Your task to perform on an android device: turn off priority inbox in the gmail app Image 0: 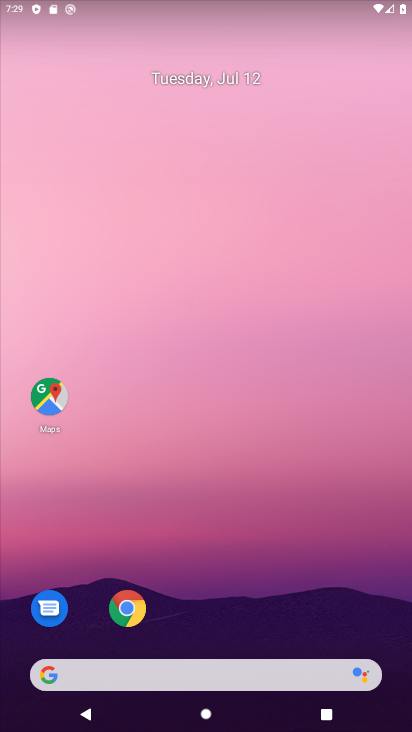
Step 0: drag from (243, 550) to (254, 269)
Your task to perform on an android device: turn off priority inbox in the gmail app Image 1: 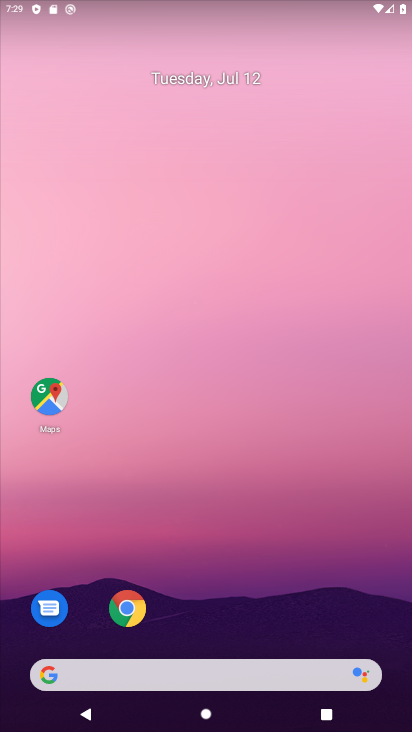
Step 1: drag from (181, 544) to (194, 269)
Your task to perform on an android device: turn off priority inbox in the gmail app Image 2: 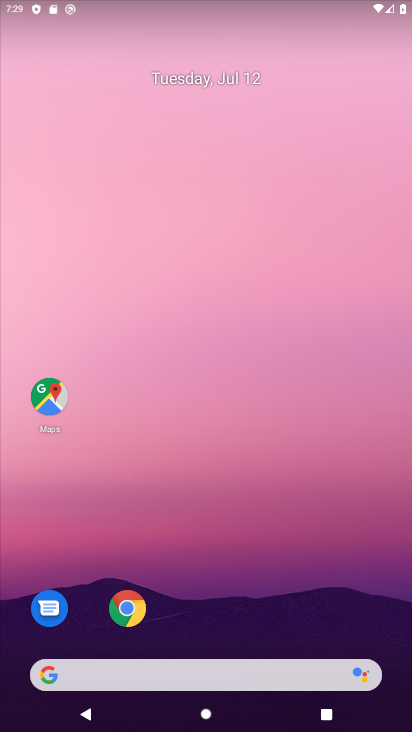
Step 2: click (229, 367)
Your task to perform on an android device: turn off priority inbox in the gmail app Image 3: 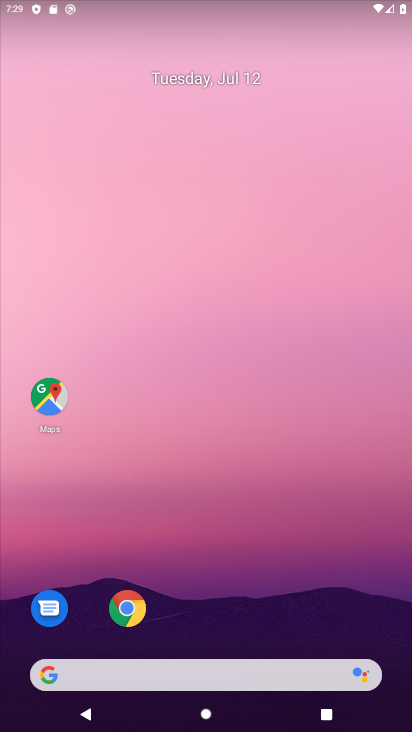
Step 3: drag from (206, 624) to (208, 111)
Your task to perform on an android device: turn off priority inbox in the gmail app Image 4: 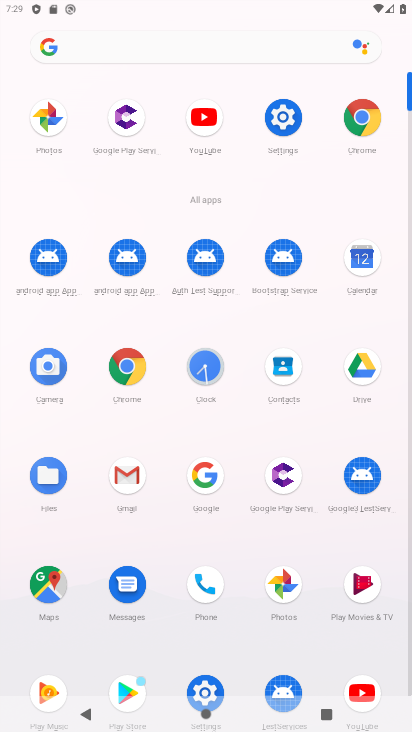
Step 4: click (125, 493)
Your task to perform on an android device: turn off priority inbox in the gmail app Image 5: 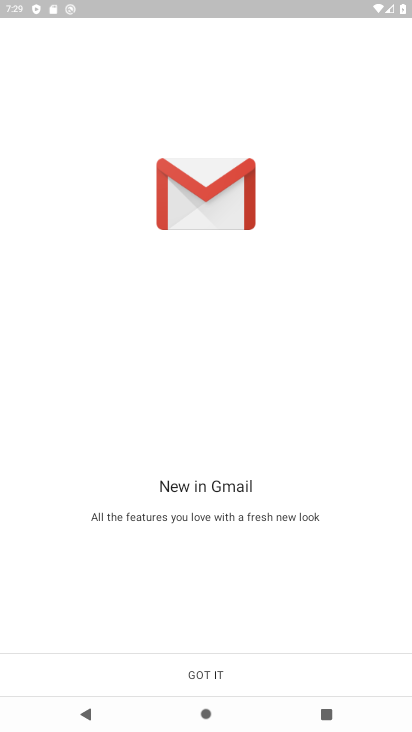
Step 5: click (194, 679)
Your task to perform on an android device: turn off priority inbox in the gmail app Image 6: 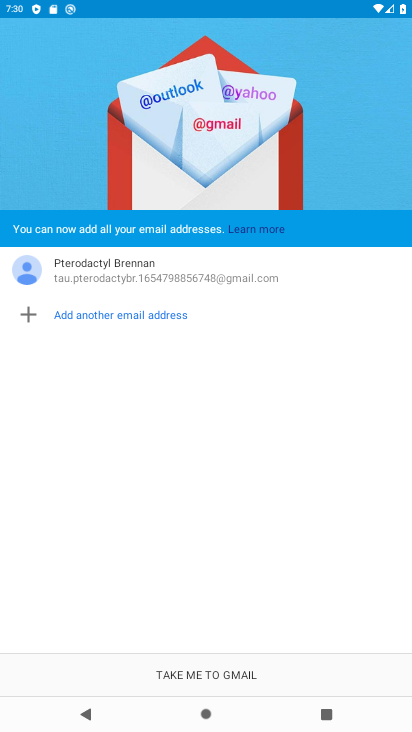
Step 6: click (205, 671)
Your task to perform on an android device: turn off priority inbox in the gmail app Image 7: 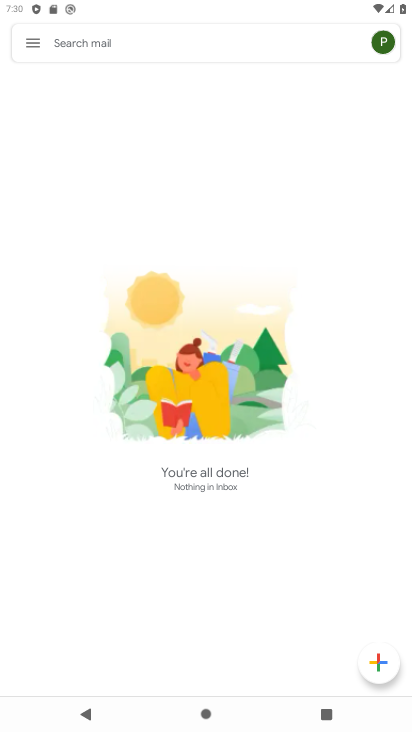
Step 7: click (30, 44)
Your task to perform on an android device: turn off priority inbox in the gmail app Image 8: 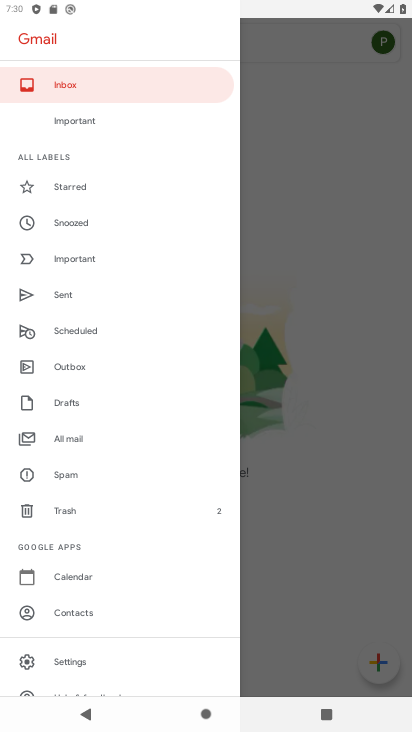
Step 8: click (67, 666)
Your task to perform on an android device: turn off priority inbox in the gmail app Image 9: 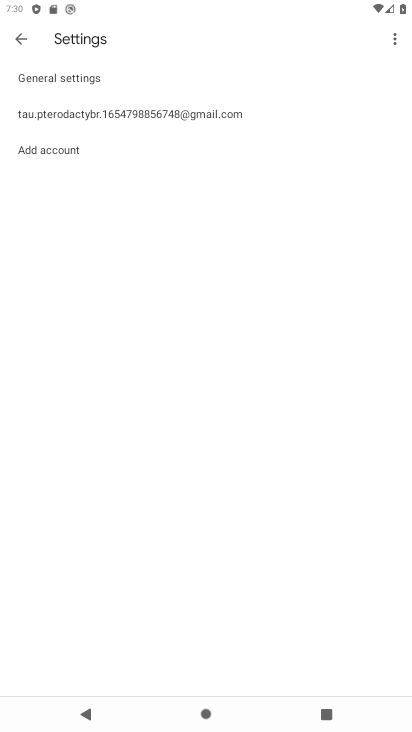
Step 9: click (110, 122)
Your task to perform on an android device: turn off priority inbox in the gmail app Image 10: 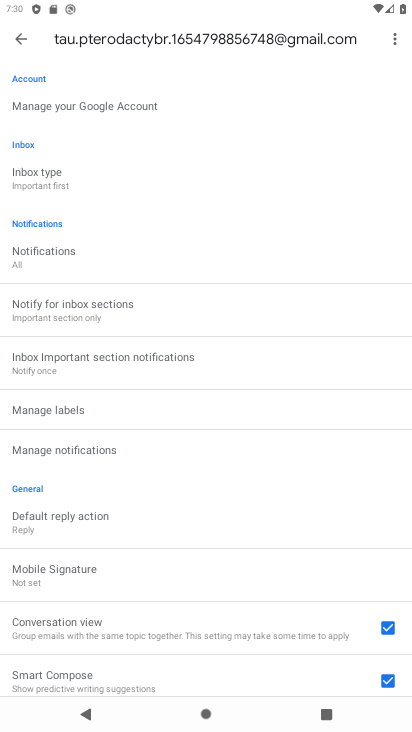
Step 10: click (54, 181)
Your task to perform on an android device: turn off priority inbox in the gmail app Image 11: 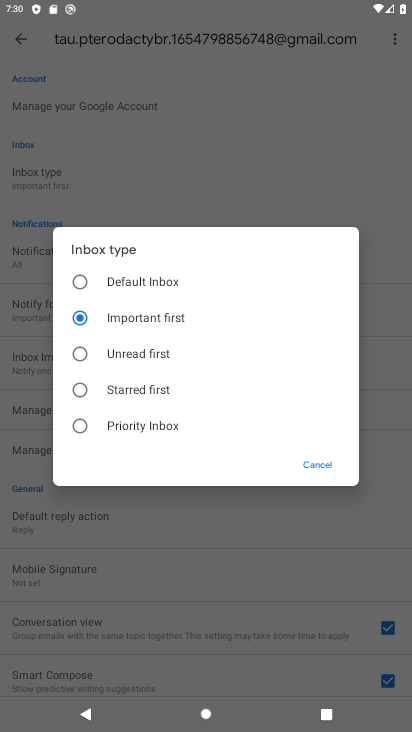
Step 11: task complete